Your task to perform on an android device: Go to eBay Image 0: 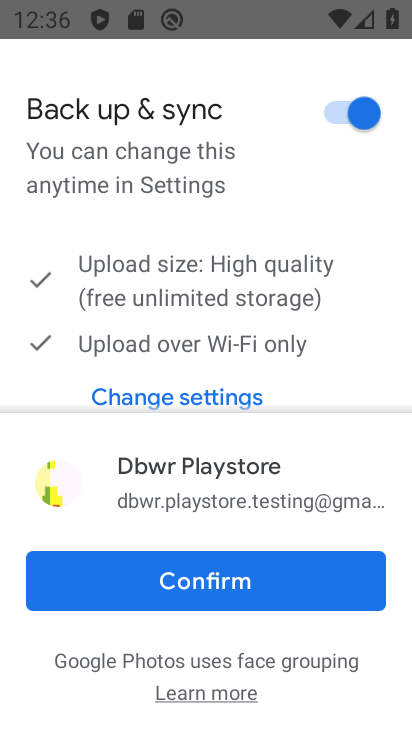
Step 0: press home button
Your task to perform on an android device: Go to eBay Image 1: 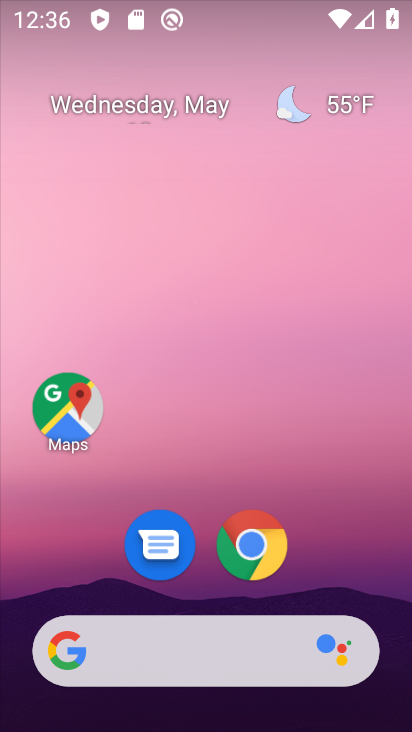
Step 1: click (254, 552)
Your task to perform on an android device: Go to eBay Image 2: 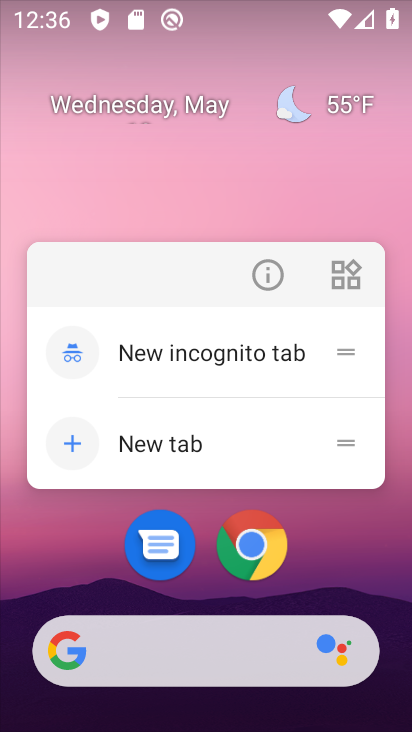
Step 2: click (252, 527)
Your task to perform on an android device: Go to eBay Image 3: 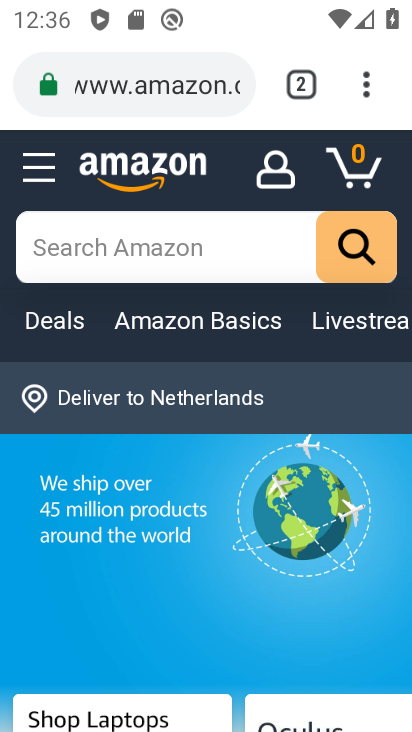
Step 3: click (294, 78)
Your task to perform on an android device: Go to eBay Image 4: 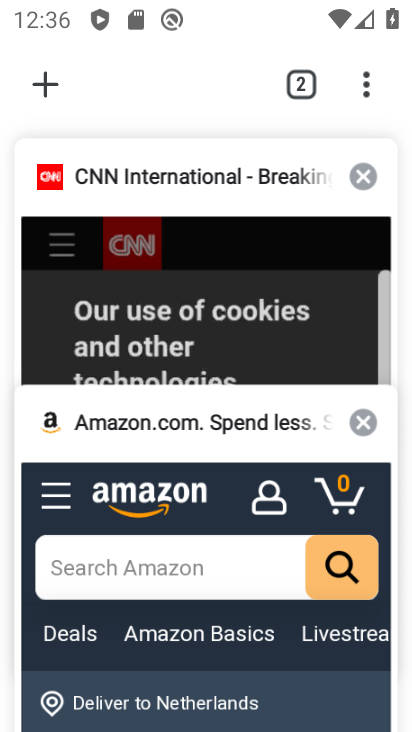
Step 4: click (360, 174)
Your task to perform on an android device: Go to eBay Image 5: 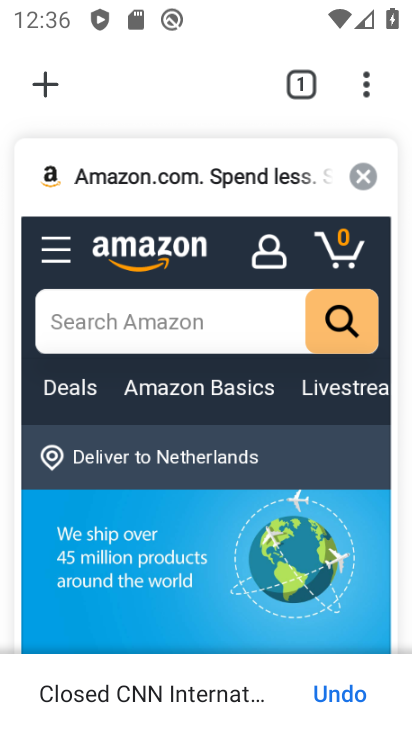
Step 5: click (361, 171)
Your task to perform on an android device: Go to eBay Image 6: 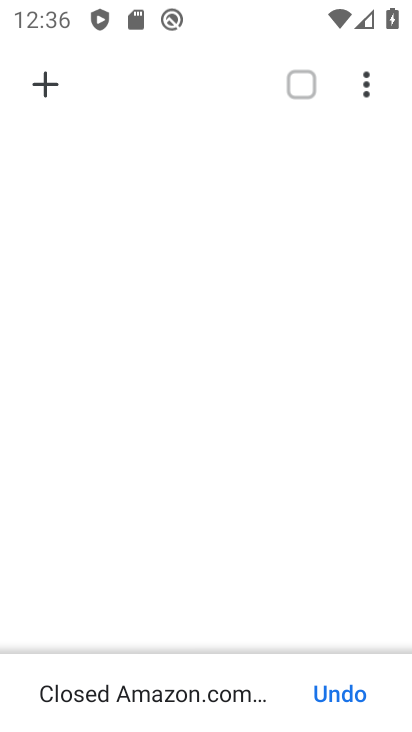
Step 6: click (51, 95)
Your task to perform on an android device: Go to eBay Image 7: 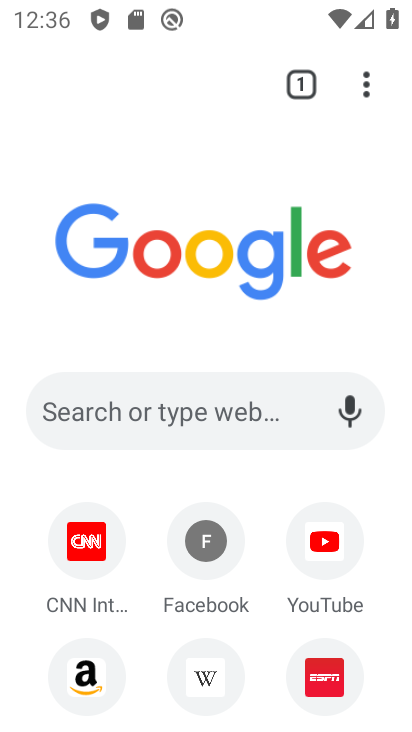
Step 7: drag from (141, 490) to (154, 355)
Your task to perform on an android device: Go to eBay Image 8: 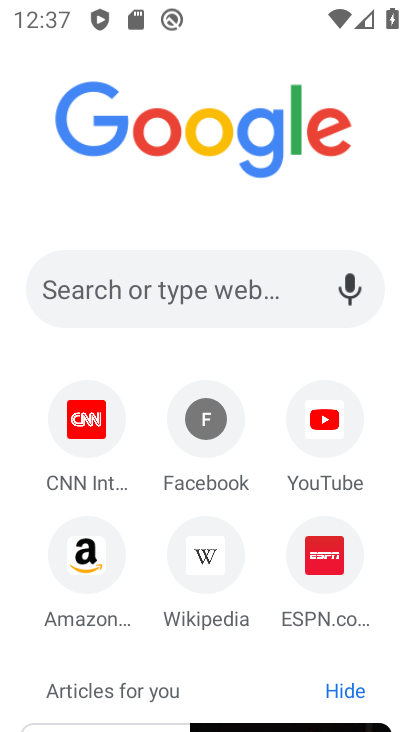
Step 8: click (162, 283)
Your task to perform on an android device: Go to eBay Image 9: 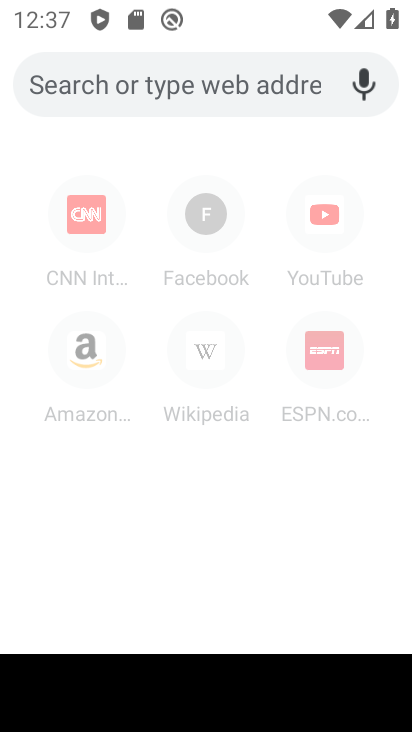
Step 9: type "ebay.com"
Your task to perform on an android device: Go to eBay Image 10: 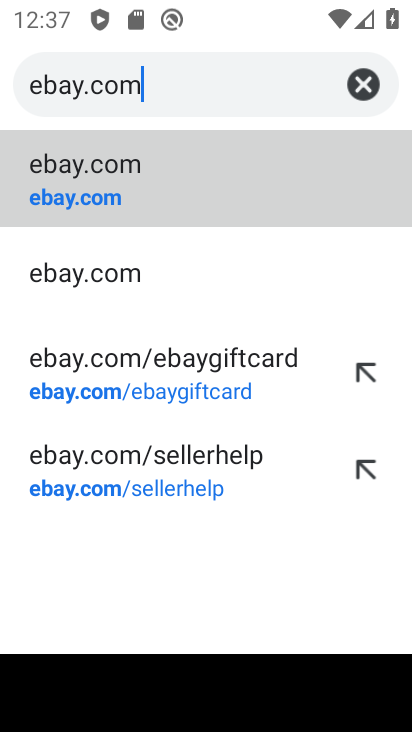
Step 10: click (136, 180)
Your task to perform on an android device: Go to eBay Image 11: 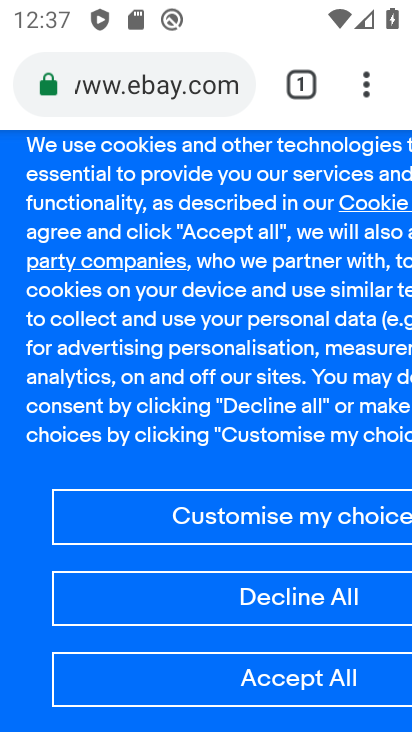
Step 11: task complete